Your task to perform on an android device: turn on the 12-hour format for clock Image 0: 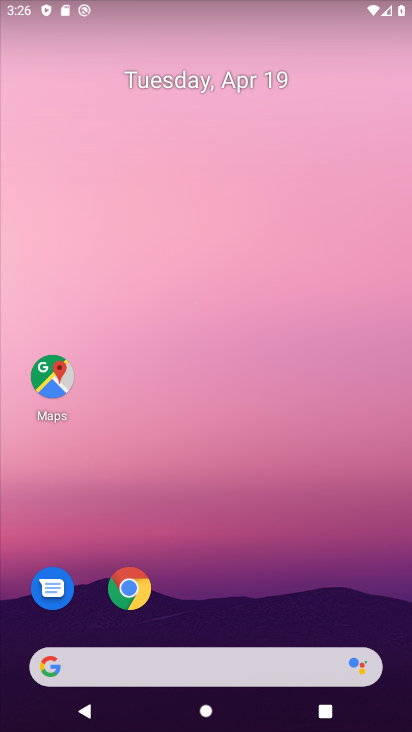
Step 0: drag from (246, 586) to (244, 172)
Your task to perform on an android device: turn on the 12-hour format for clock Image 1: 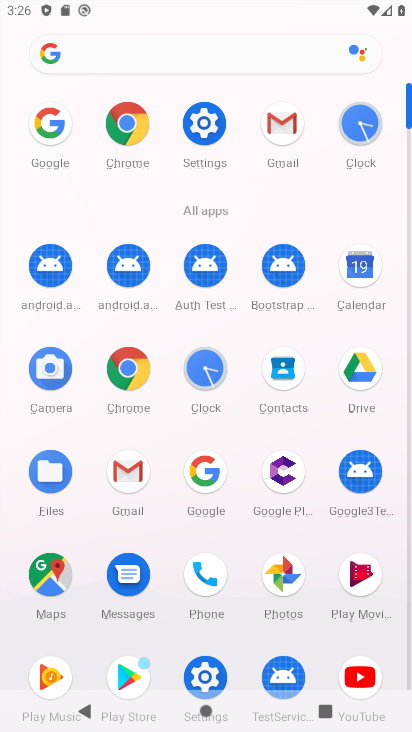
Step 1: click (362, 128)
Your task to perform on an android device: turn on the 12-hour format for clock Image 2: 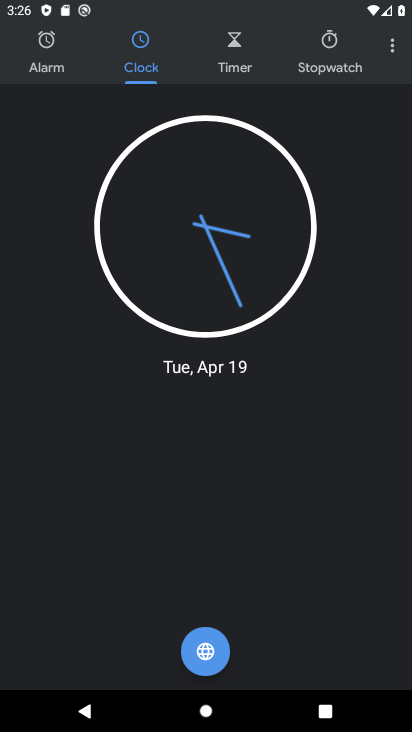
Step 2: click (389, 45)
Your task to perform on an android device: turn on the 12-hour format for clock Image 3: 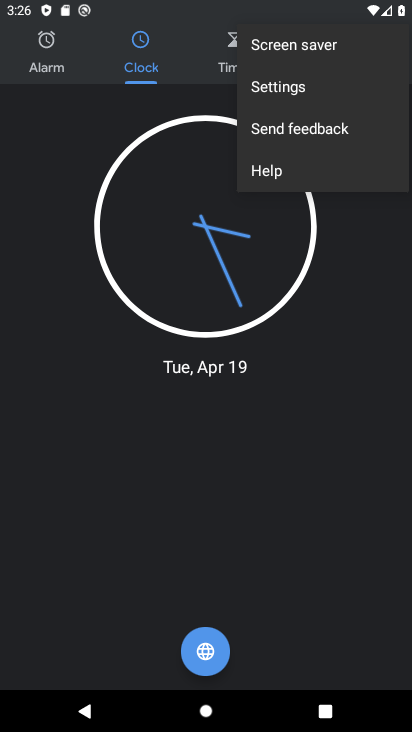
Step 3: click (321, 85)
Your task to perform on an android device: turn on the 12-hour format for clock Image 4: 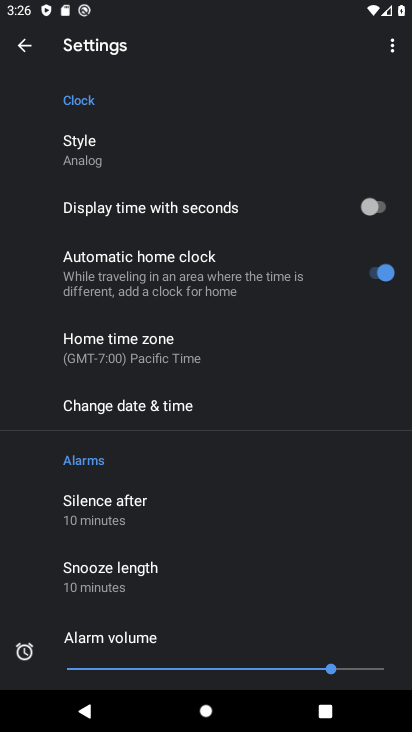
Step 4: click (179, 410)
Your task to perform on an android device: turn on the 12-hour format for clock Image 5: 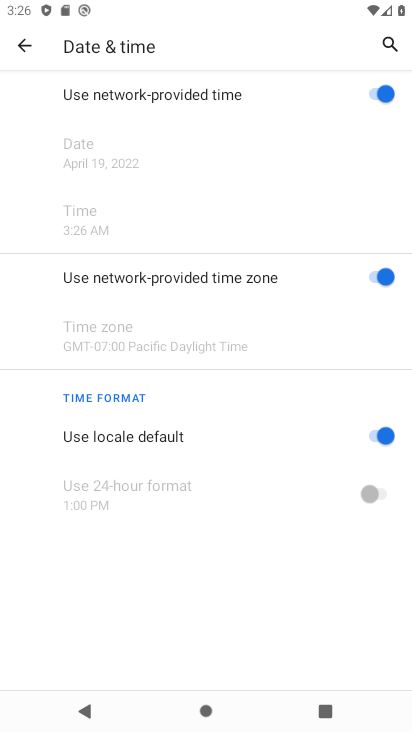
Step 5: task complete